Your task to perform on an android device: Open Google Maps Image 0: 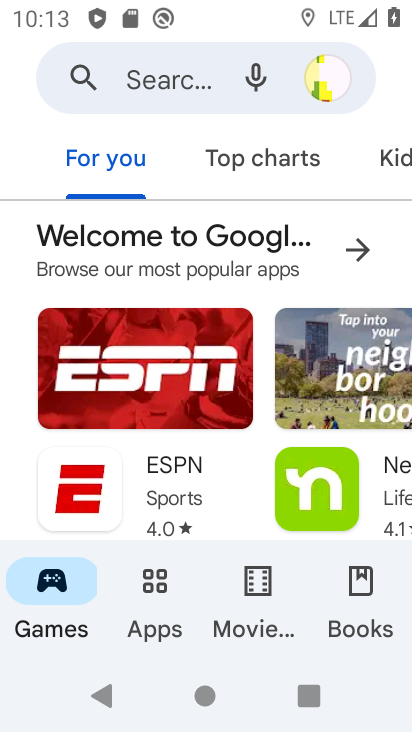
Step 0: press home button
Your task to perform on an android device: Open Google Maps Image 1: 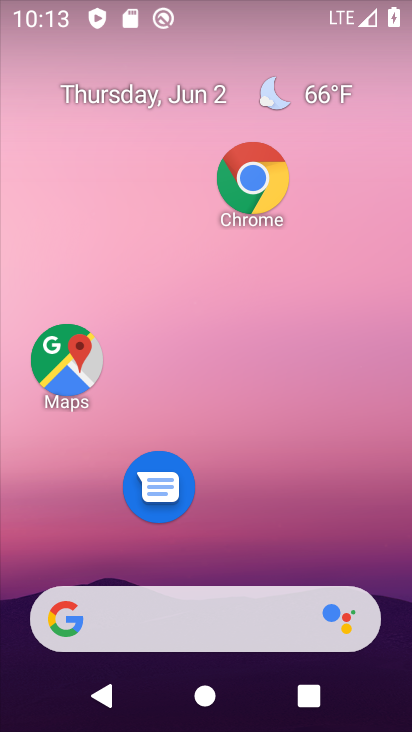
Step 1: drag from (235, 726) to (236, 152)
Your task to perform on an android device: Open Google Maps Image 2: 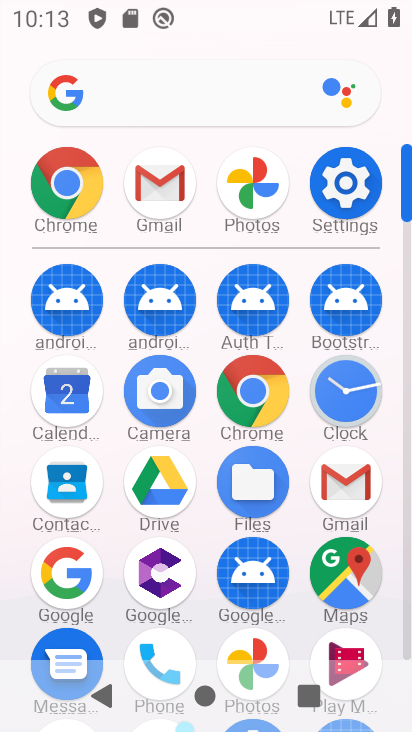
Step 2: click (340, 579)
Your task to perform on an android device: Open Google Maps Image 3: 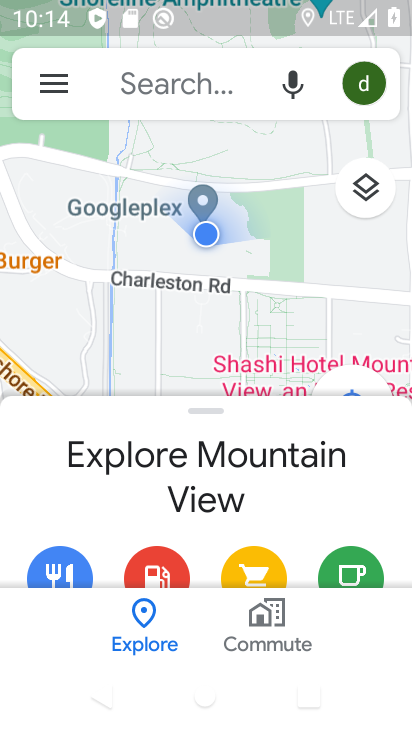
Step 3: task complete